Your task to perform on an android device: find snoozed emails in the gmail app Image 0: 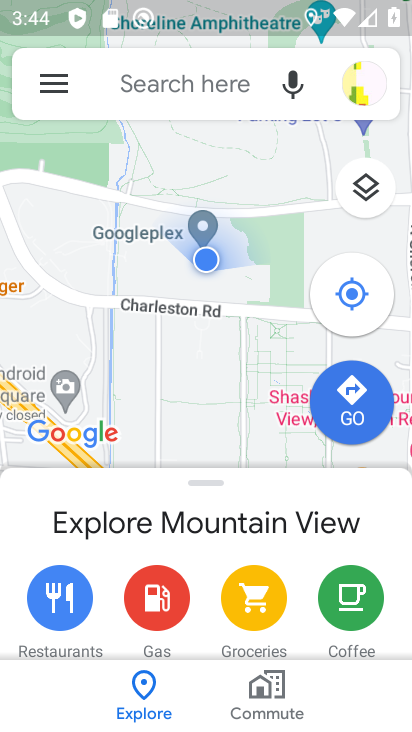
Step 0: press back button
Your task to perform on an android device: find snoozed emails in the gmail app Image 1: 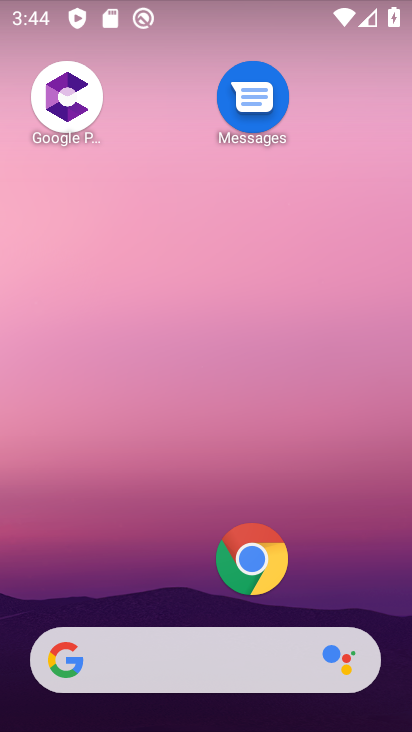
Step 1: drag from (123, 597) to (155, 239)
Your task to perform on an android device: find snoozed emails in the gmail app Image 2: 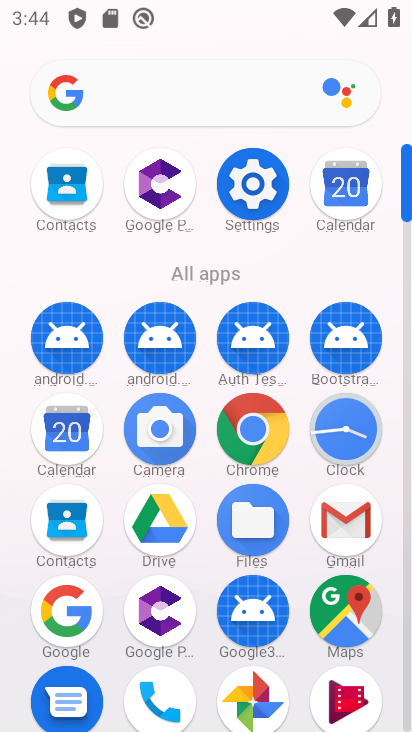
Step 2: click (351, 537)
Your task to perform on an android device: find snoozed emails in the gmail app Image 3: 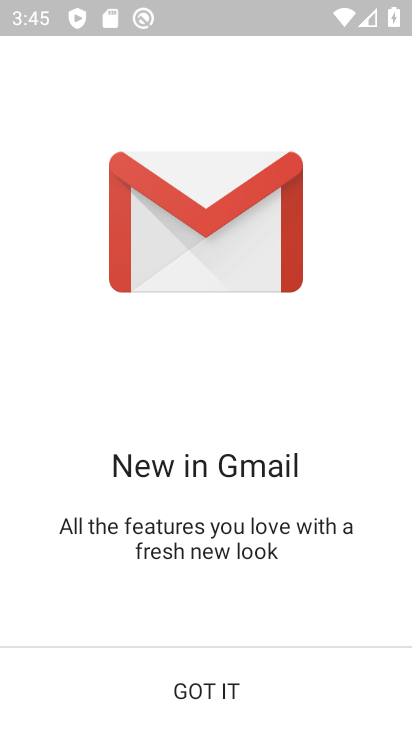
Step 3: click (212, 672)
Your task to perform on an android device: find snoozed emails in the gmail app Image 4: 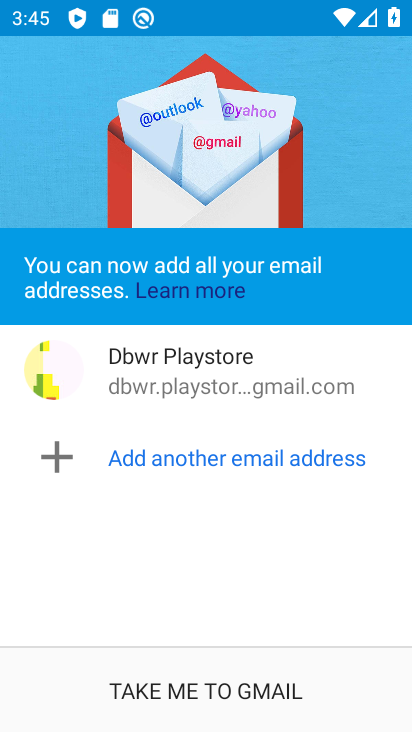
Step 4: click (171, 391)
Your task to perform on an android device: find snoozed emails in the gmail app Image 5: 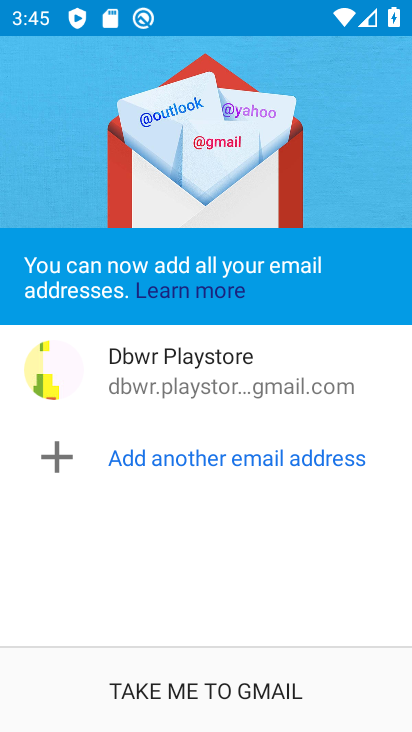
Step 5: click (230, 394)
Your task to perform on an android device: find snoozed emails in the gmail app Image 6: 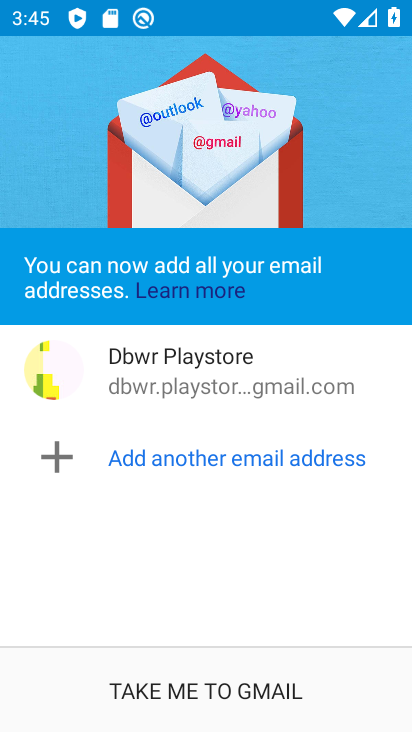
Step 6: click (218, 390)
Your task to perform on an android device: find snoozed emails in the gmail app Image 7: 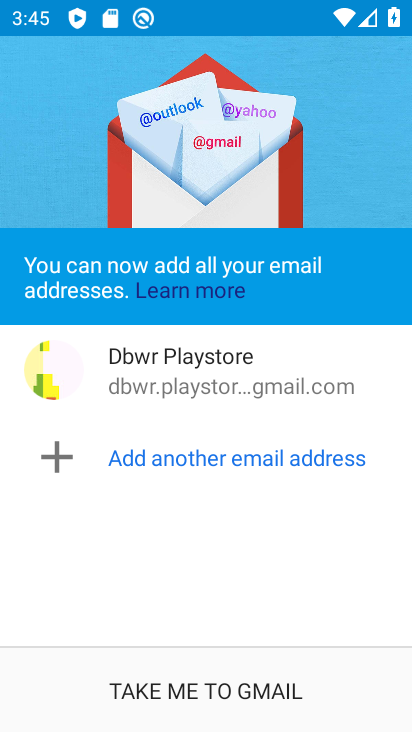
Step 7: click (175, 684)
Your task to perform on an android device: find snoozed emails in the gmail app Image 8: 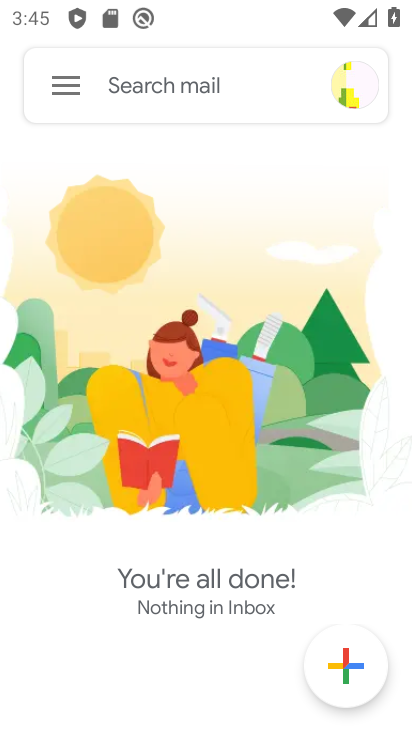
Step 8: click (75, 81)
Your task to perform on an android device: find snoozed emails in the gmail app Image 9: 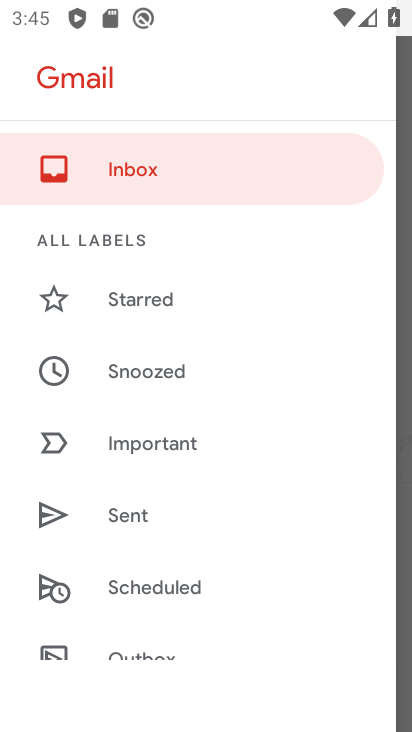
Step 9: click (158, 363)
Your task to perform on an android device: find snoozed emails in the gmail app Image 10: 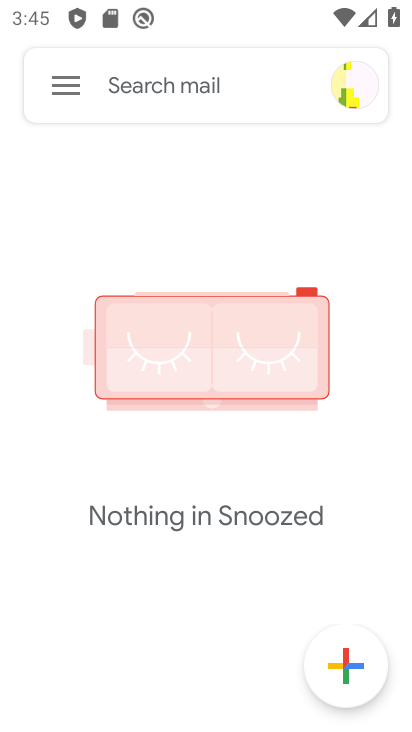
Step 10: task complete